Your task to perform on an android device: Show me productivity apps on the Play Store Image 0: 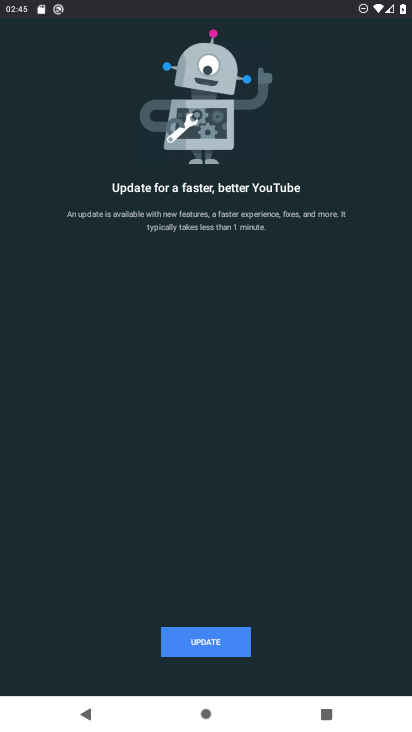
Step 0: press home button
Your task to perform on an android device: Show me productivity apps on the Play Store Image 1: 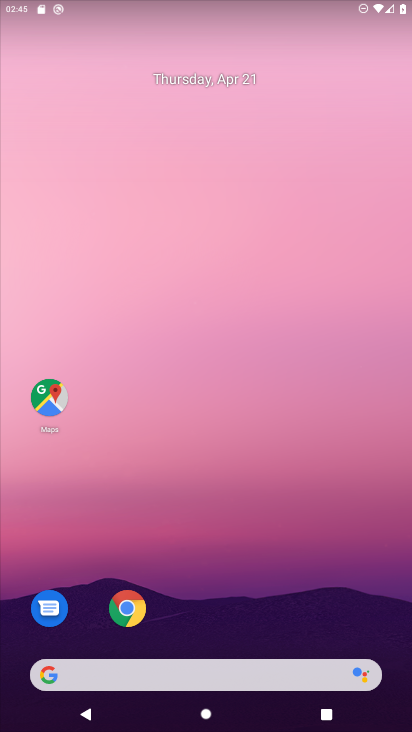
Step 1: drag from (214, 652) to (305, 230)
Your task to perform on an android device: Show me productivity apps on the Play Store Image 2: 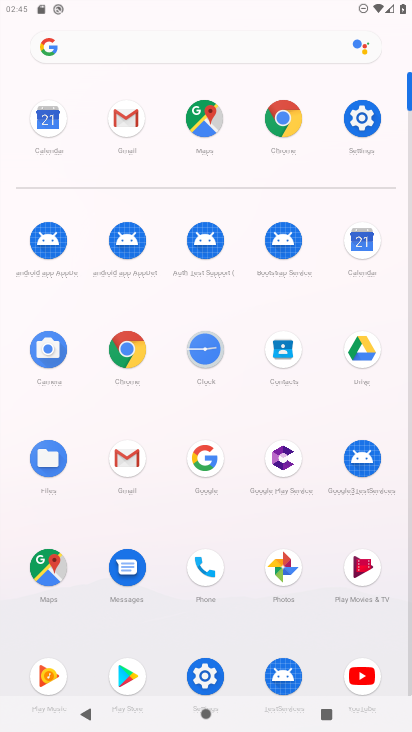
Step 2: click (120, 668)
Your task to perform on an android device: Show me productivity apps on the Play Store Image 3: 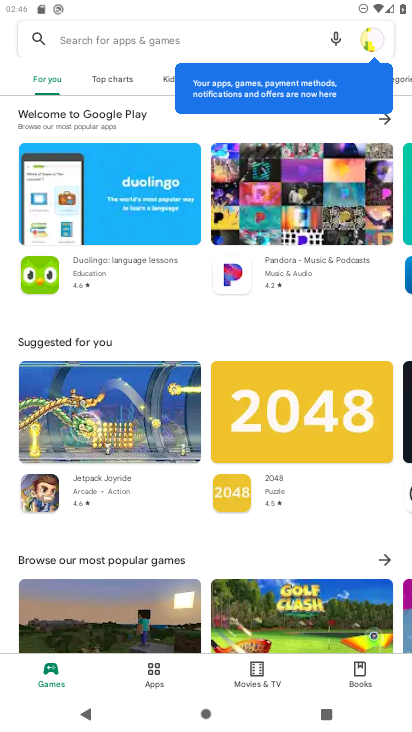
Step 3: click (159, 668)
Your task to perform on an android device: Show me productivity apps on the Play Store Image 4: 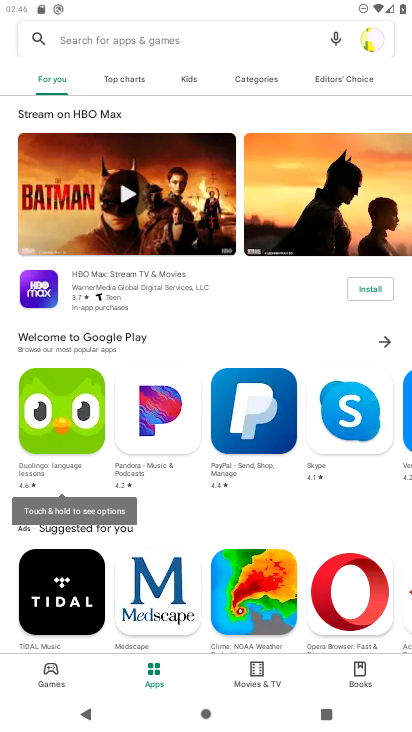
Step 4: task complete